Your task to perform on an android device: turn off picture-in-picture Image 0: 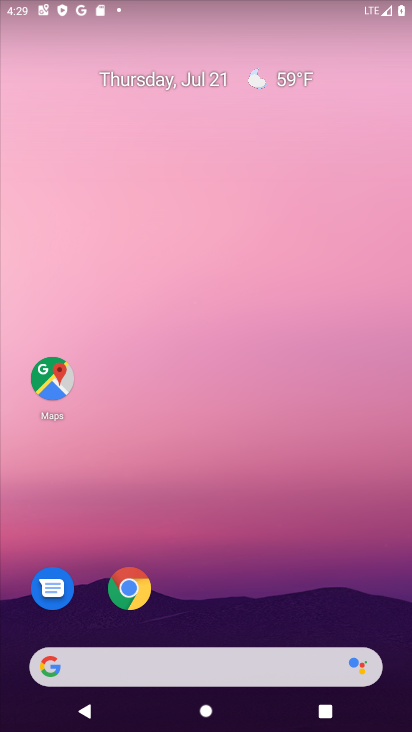
Step 0: drag from (239, 691) to (250, 98)
Your task to perform on an android device: turn off picture-in-picture Image 1: 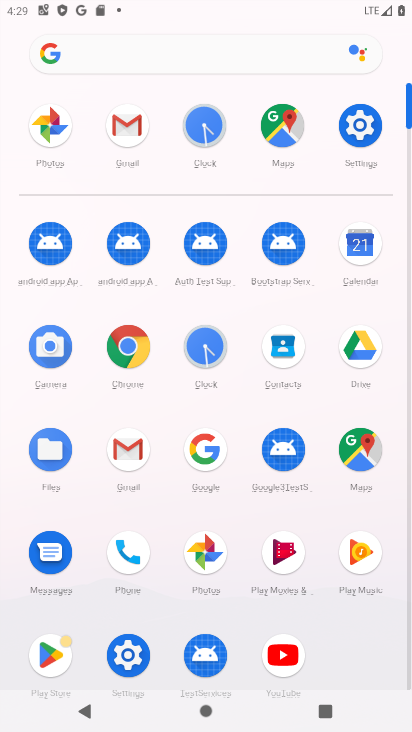
Step 1: click (356, 125)
Your task to perform on an android device: turn off picture-in-picture Image 2: 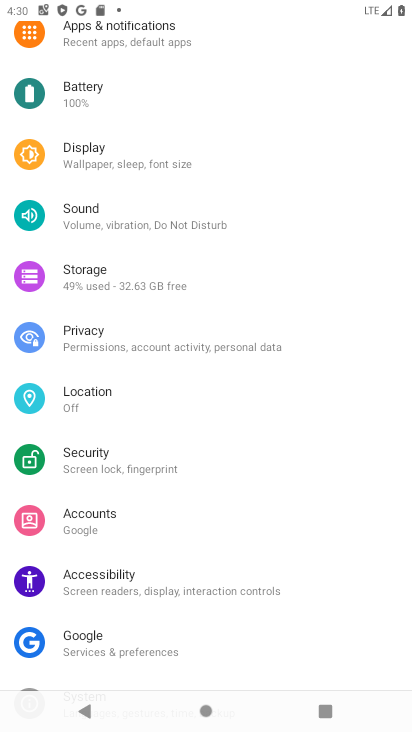
Step 2: drag from (188, 254) to (154, 564)
Your task to perform on an android device: turn off picture-in-picture Image 3: 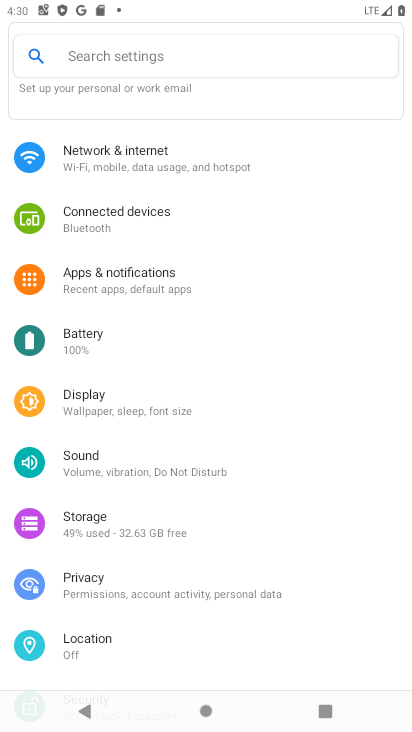
Step 3: click (129, 288)
Your task to perform on an android device: turn off picture-in-picture Image 4: 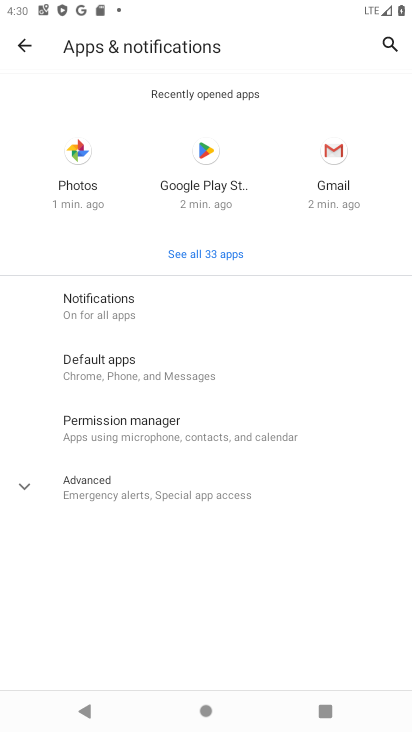
Step 4: click (117, 483)
Your task to perform on an android device: turn off picture-in-picture Image 5: 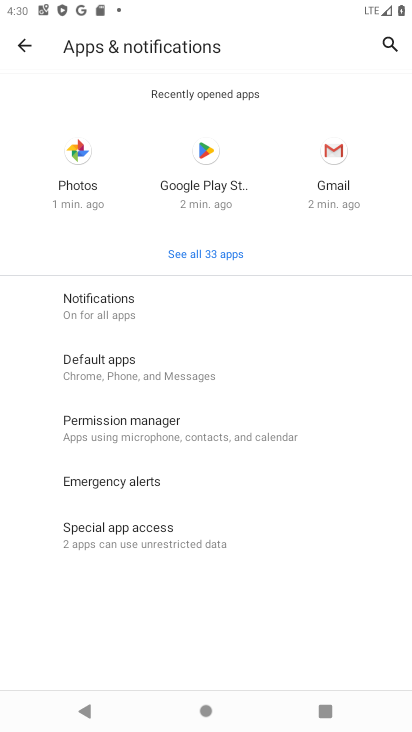
Step 5: click (132, 537)
Your task to perform on an android device: turn off picture-in-picture Image 6: 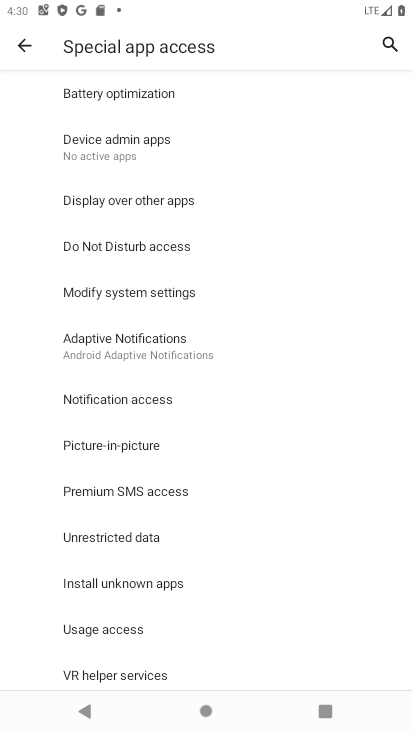
Step 6: click (103, 449)
Your task to perform on an android device: turn off picture-in-picture Image 7: 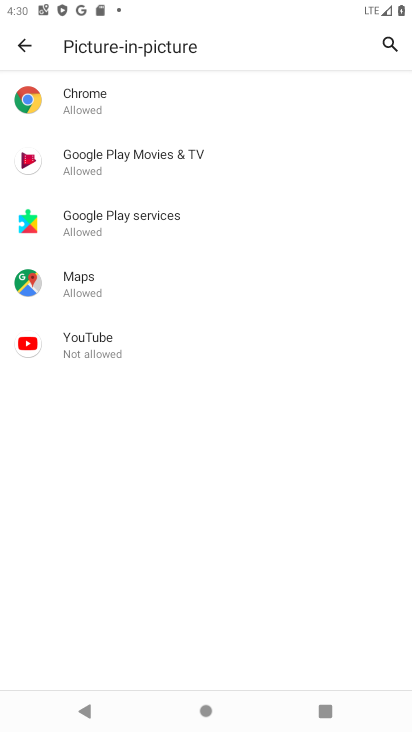
Step 7: click (69, 338)
Your task to perform on an android device: turn off picture-in-picture Image 8: 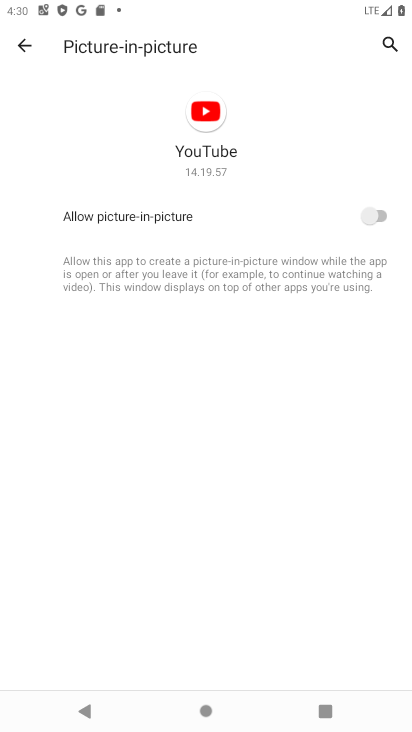
Step 8: task complete